Your task to perform on an android device: delete a single message in the gmail app Image 0: 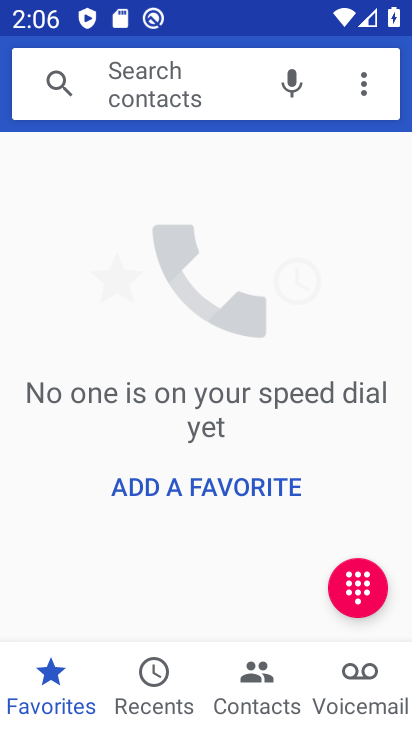
Step 0: press back button
Your task to perform on an android device: delete a single message in the gmail app Image 1: 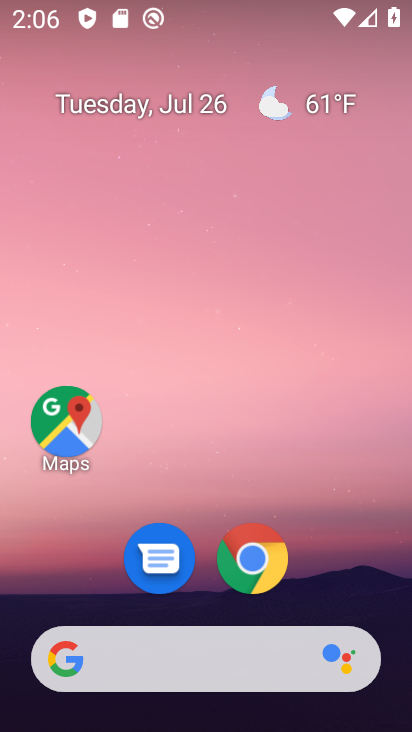
Step 1: drag from (163, 564) to (315, 0)
Your task to perform on an android device: delete a single message in the gmail app Image 2: 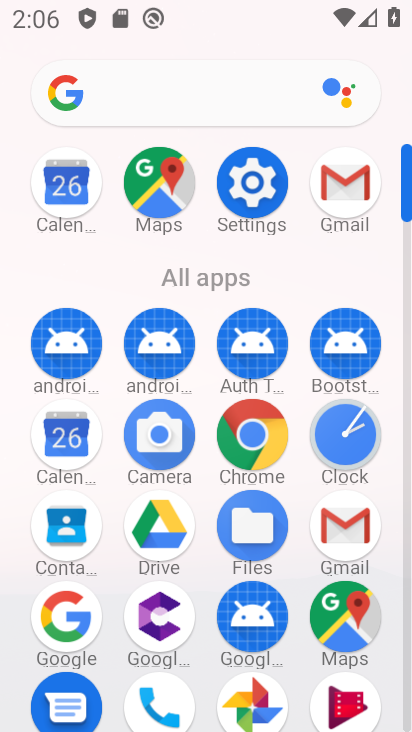
Step 2: click (351, 179)
Your task to perform on an android device: delete a single message in the gmail app Image 3: 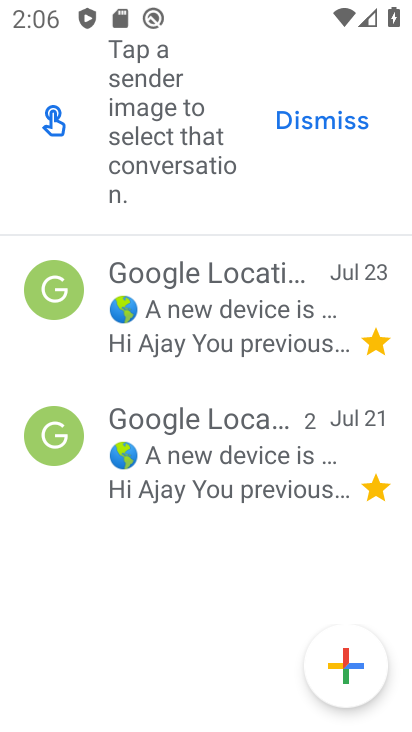
Step 3: drag from (284, 279) to (238, 448)
Your task to perform on an android device: delete a single message in the gmail app Image 4: 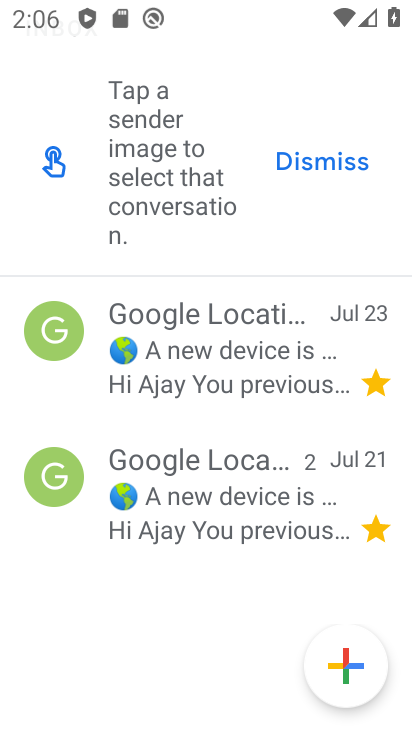
Step 4: click (233, 332)
Your task to perform on an android device: delete a single message in the gmail app Image 5: 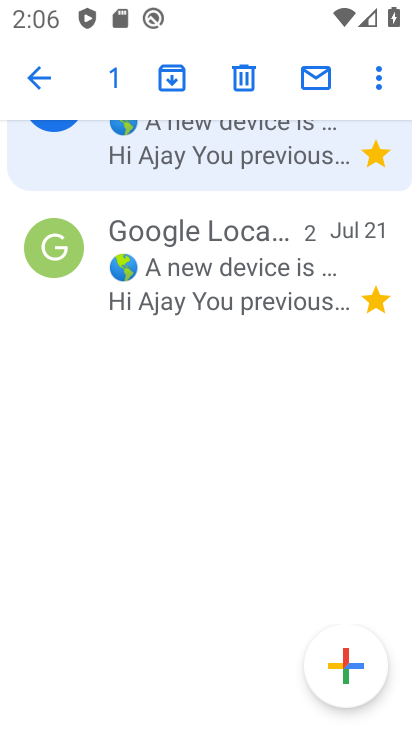
Step 5: click (254, 75)
Your task to perform on an android device: delete a single message in the gmail app Image 6: 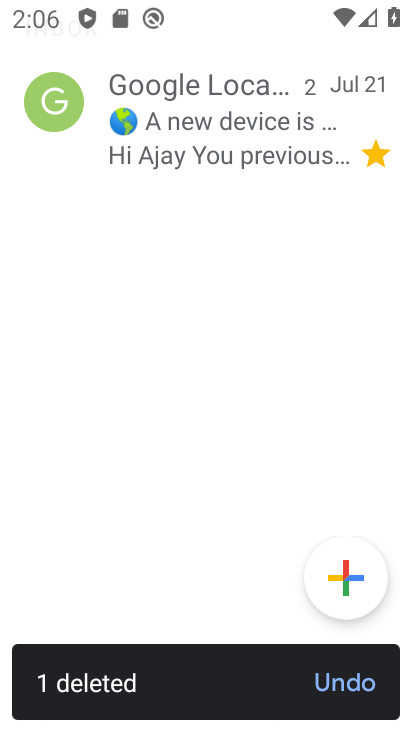
Step 6: task complete